Your task to perform on an android device: Go to Maps Image 0: 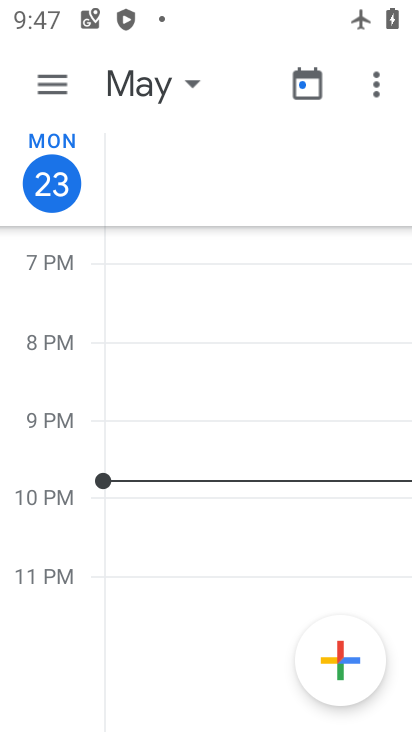
Step 0: press home button
Your task to perform on an android device: Go to Maps Image 1: 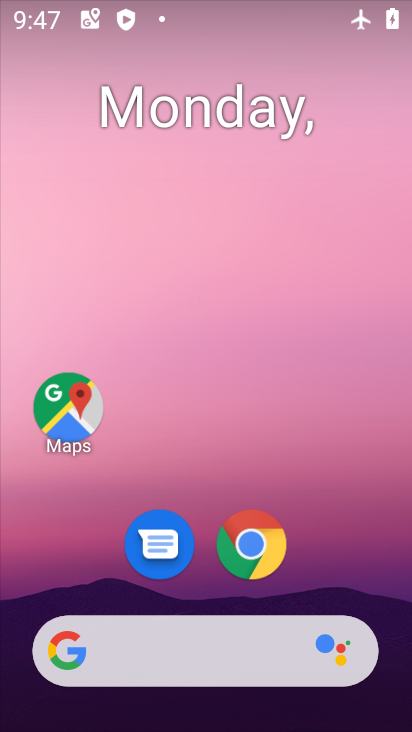
Step 1: click (61, 409)
Your task to perform on an android device: Go to Maps Image 2: 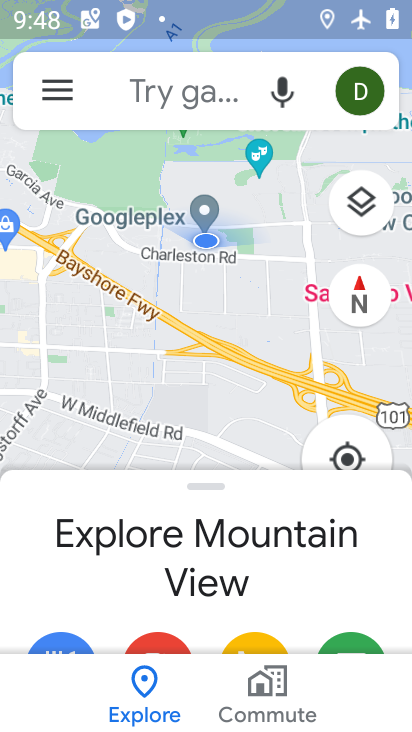
Step 2: task complete